Your task to perform on an android device: clear history in the chrome app Image 0: 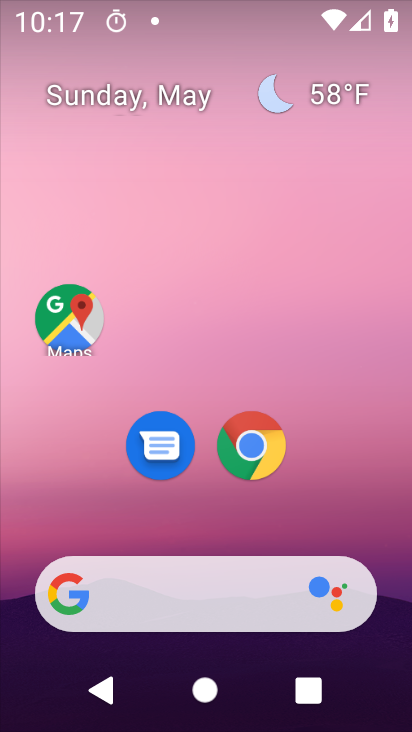
Step 0: drag from (381, 507) to (234, 25)
Your task to perform on an android device: clear history in the chrome app Image 1: 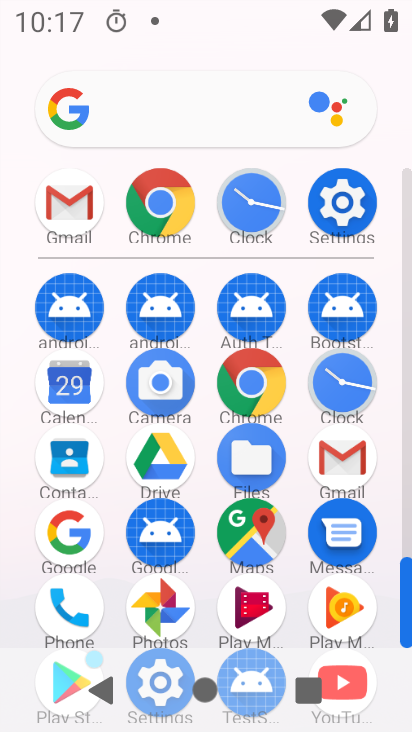
Step 1: drag from (4, 585) to (16, 199)
Your task to perform on an android device: clear history in the chrome app Image 2: 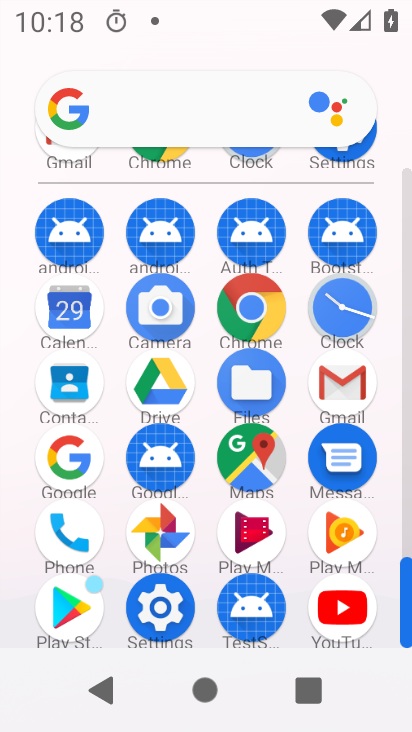
Step 2: click (252, 303)
Your task to perform on an android device: clear history in the chrome app Image 3: 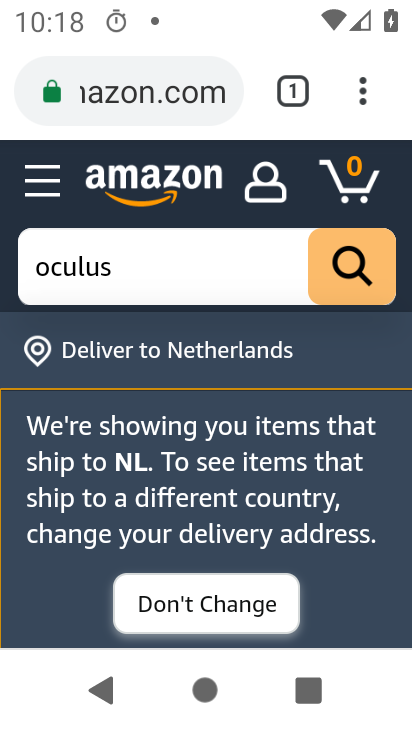
Step 3: drag from (364, 98) to (127, 270)
Your task to perform on an android device: clear history in the chrome app Image 4: 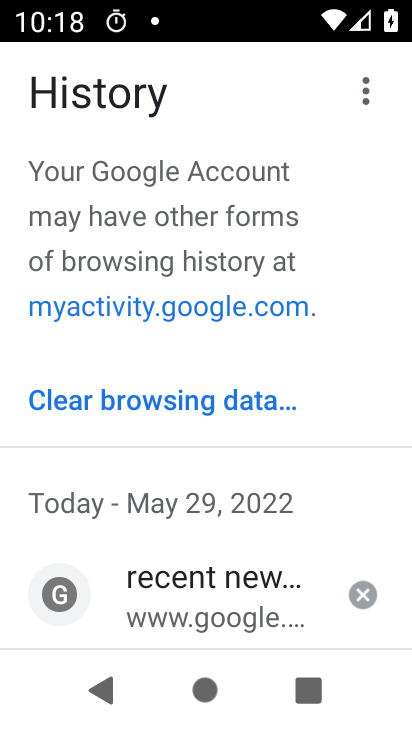
Step 4: click (186, 402)
Your task to perform on an android device: clear history in the chrome app Image 5: 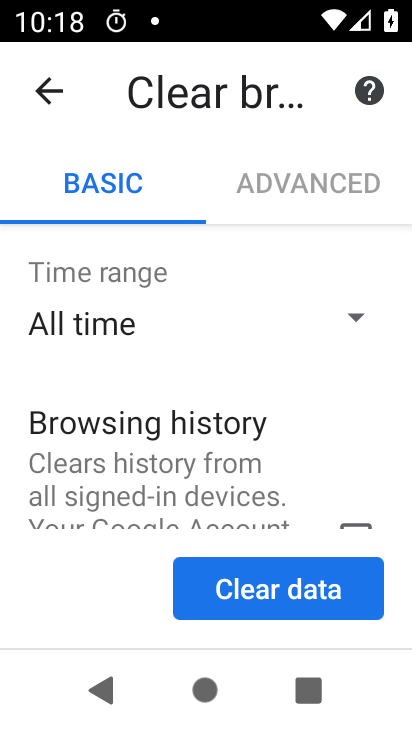
Step 5: click (280, 566)
Your task to perform on an android device: clear history in the chrome app Image 6: 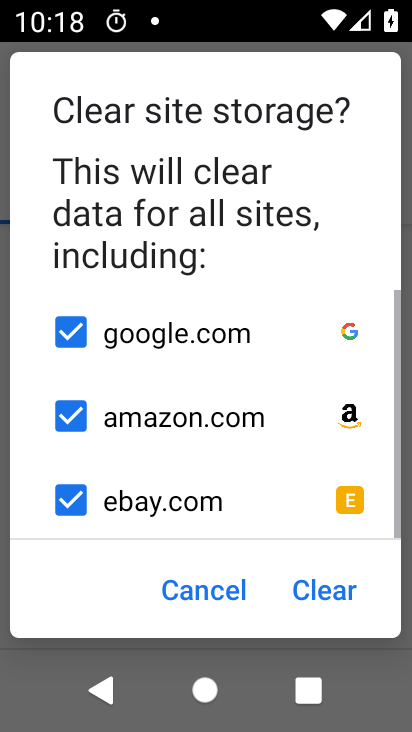
Step 6: click (321, 574)
Your task to perform on an android device: clear history in the chrome app Image 7: 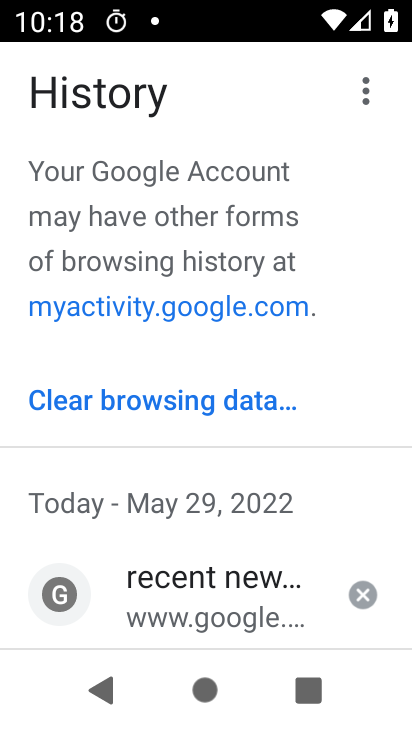
Step 7: task complete